Your task to perform on an android device: turn on the 24-hour format for clock Image 0: 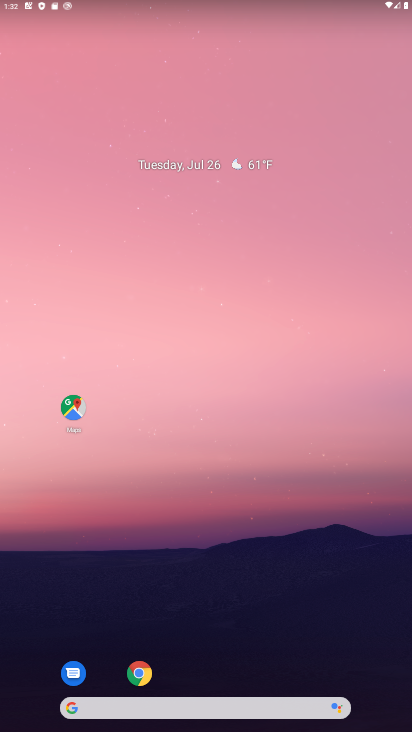
Step 0: drag from (219, 707) to (205, 126)
Your task to perform on an android device: turn on the 24-hour format for clock Image 1: 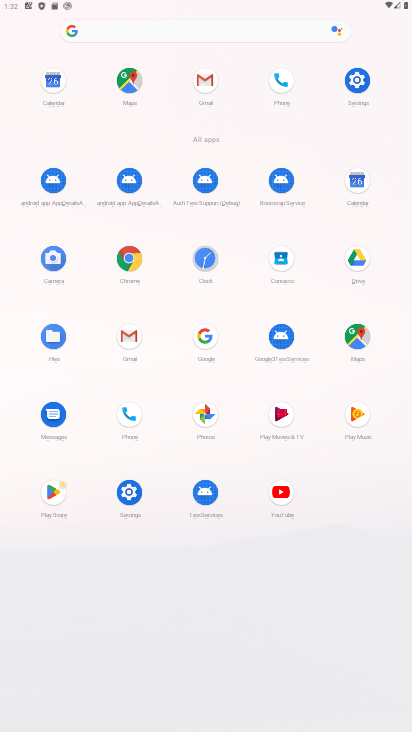
Step 1: click (205, 258)
Your task to perform on an android device: turn on the 24-hour format for clock Image 2: 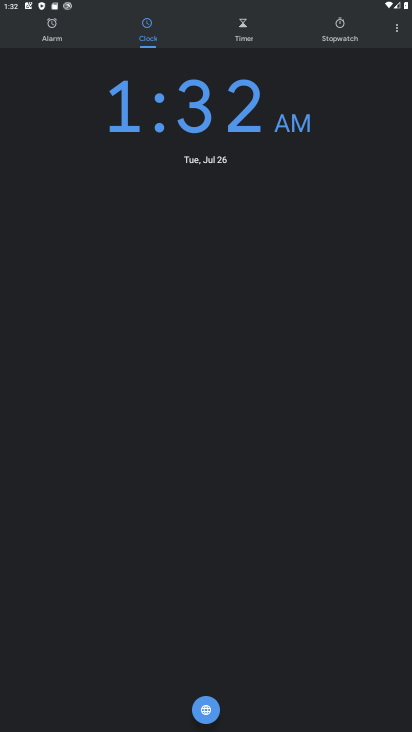
Step 2: click (398, 29)
Your task to perform on an android device: turn on the 24-hour format for clock Image 3: 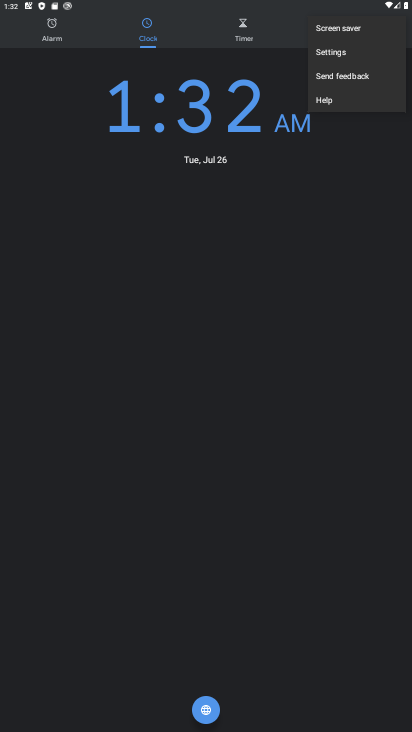
Step 3: click (326, 55)
Your task to perform on an android device: turn on the 24-hour format for clock Image 4: 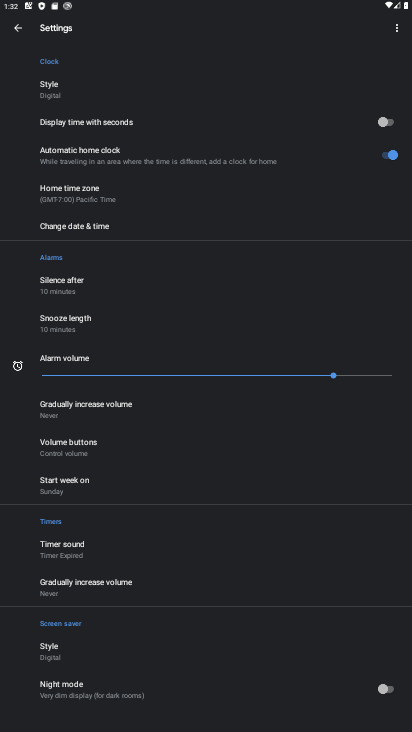
Step 4: click (91, 225)
Your task to perform on an android device: turn on the 24-hour format for clock Image 5: 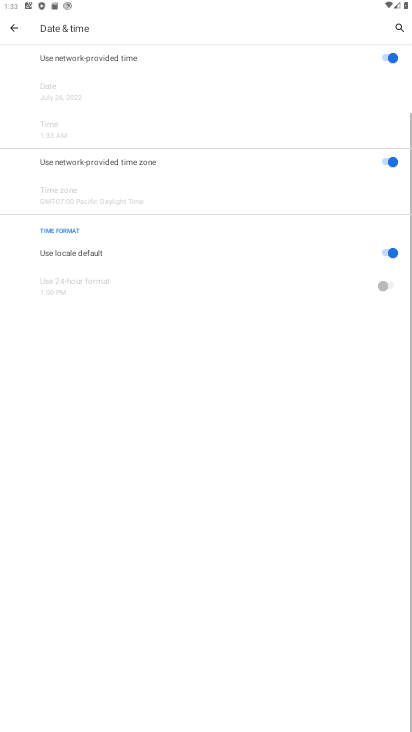
Step 5: click (394, 250)
Your task to perform on an android device: turn on the 24-hour format for clock Image 6: 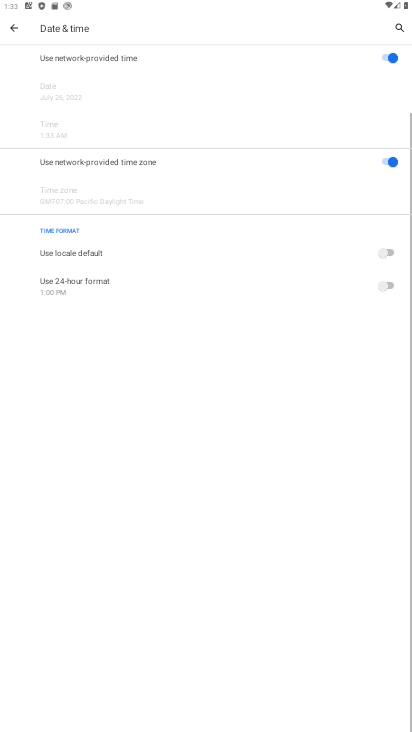
Step 6: click (393, 285)
Your task to perform on an android device: turn on the 24-hour format for clock Image 7: 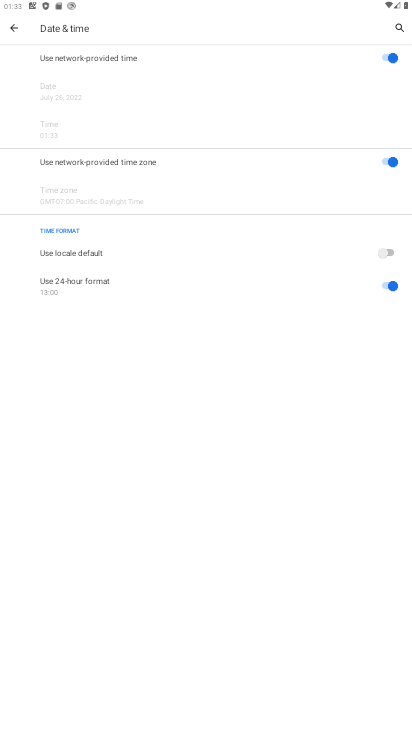
Step 7: task complete